Your task to perform on an android device: What is the speed of light? Image 0: 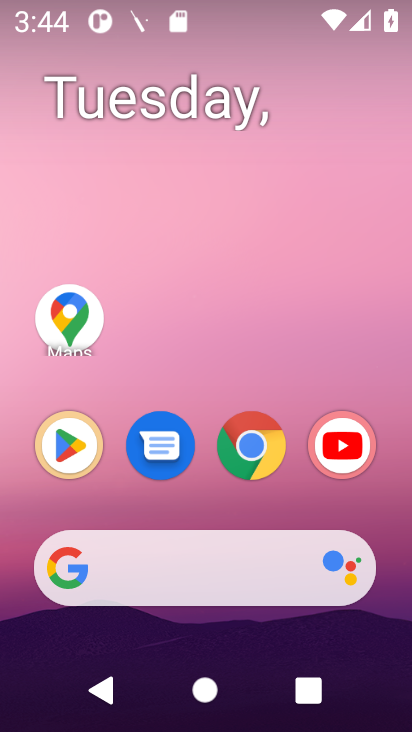
Step 0: drag from (143, 510) to (150, 0)
Your task to perform on an android device: What is the speed of light? Image 1: 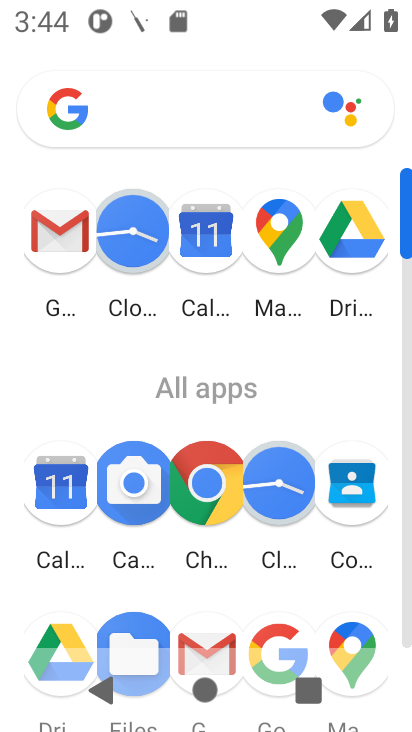
Step 1: click (285, 632)
Your task to perform on an android device: What is the speed of light? Image 2: 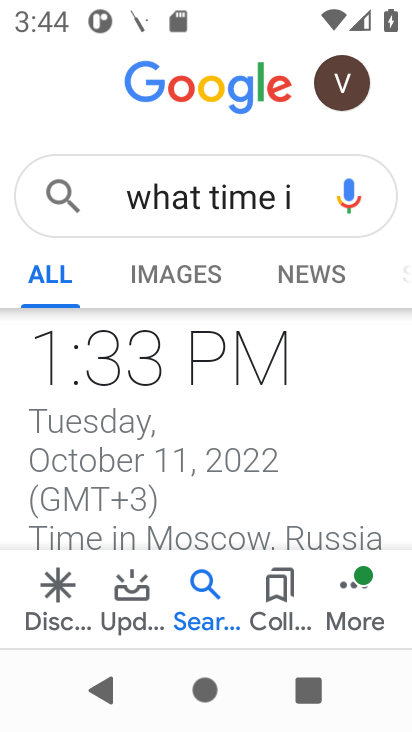
Step 2: click (184, 201)
Your task to perform on an android device: What is the speed of light? Image 3: 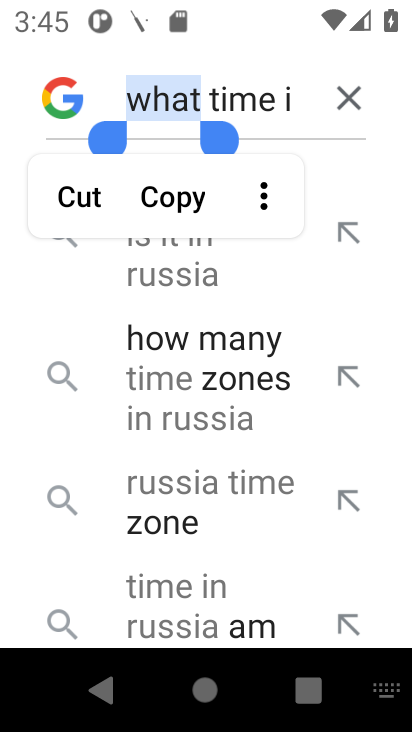
Step 3: click (271, 106)
Your task to perform on an android device: What is the speed of light? Image 4: 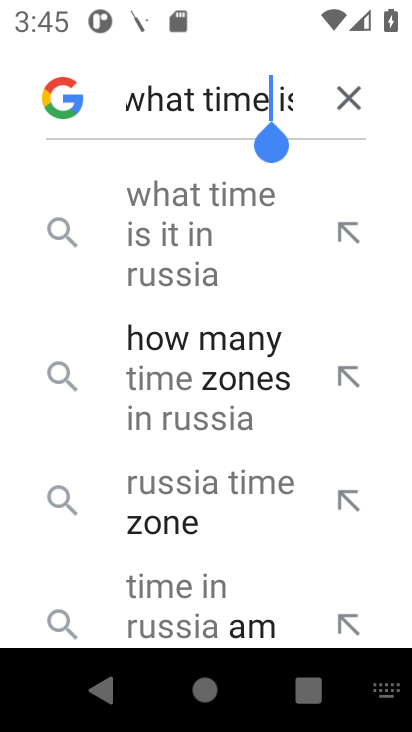
Step 4: click (345, 100)
Your task to perform on an android device: What is the speed of light? Image 5: 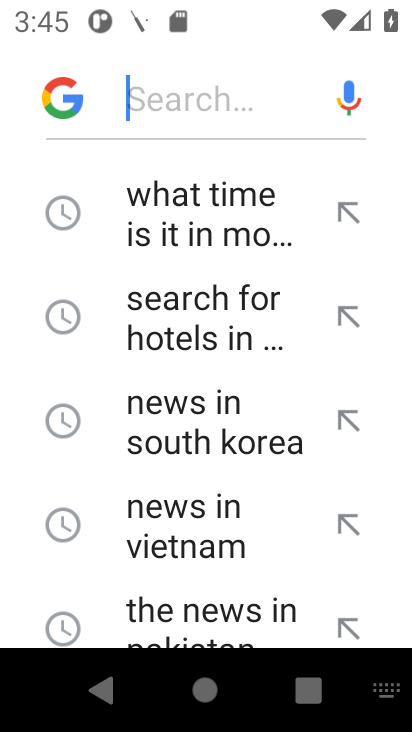
Step 5: type "What is the speed of light?"
Your task to perform on an android device: What is the speed of light? Image 6: 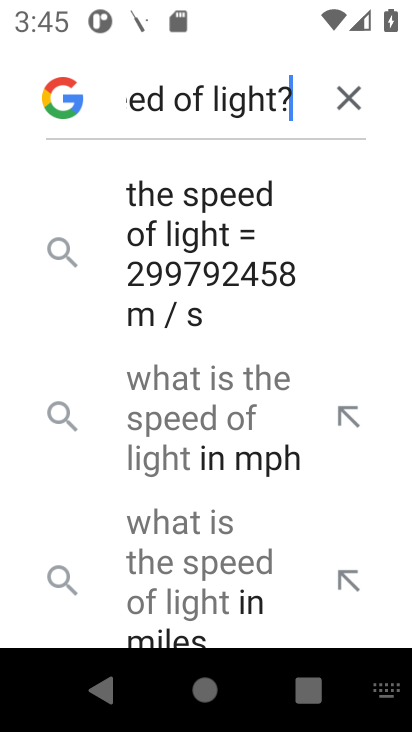
Step 6: click (169, 225)
Your task to perform on an android device: What is the speed of light? Image 7: 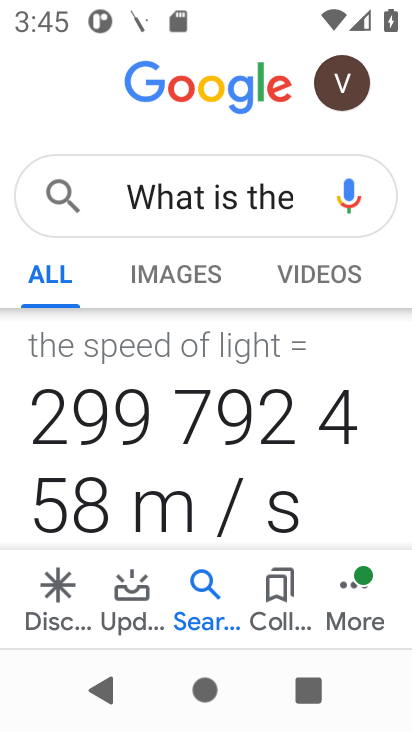
Step 7: task complete